Your task to perform on an android device: What's on my calendar today? Image 0: 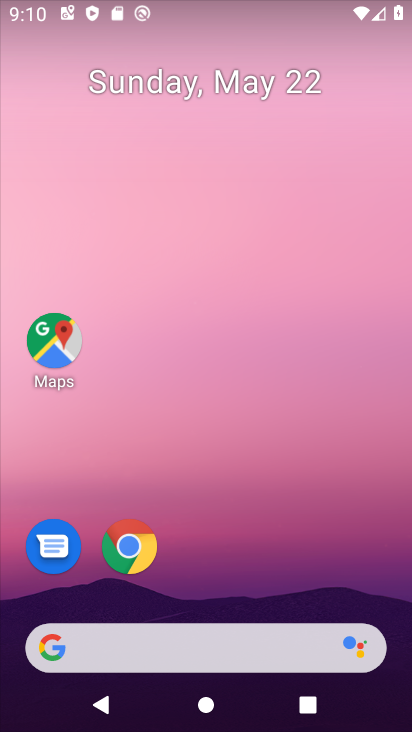
Step 0: drag from (226, 565) to (305, 14)
Your task to perform on an android device: What's on my calendar today? Image 1: 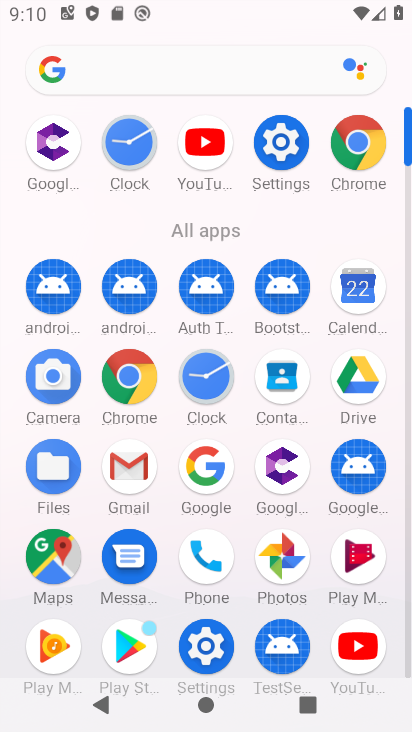
Step 1: click (354, 254)
Your task to perform on an android device: What's on my calendar today? Image 2: 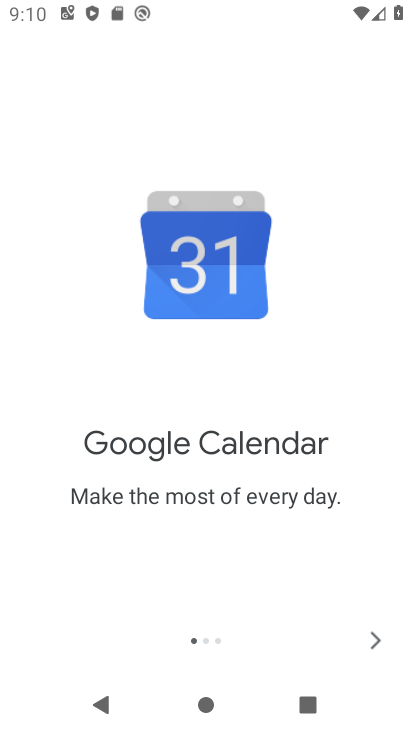
Step 2: click (378, 652)
Your task to perform on an android device: What's on my calendar today? Image 3: 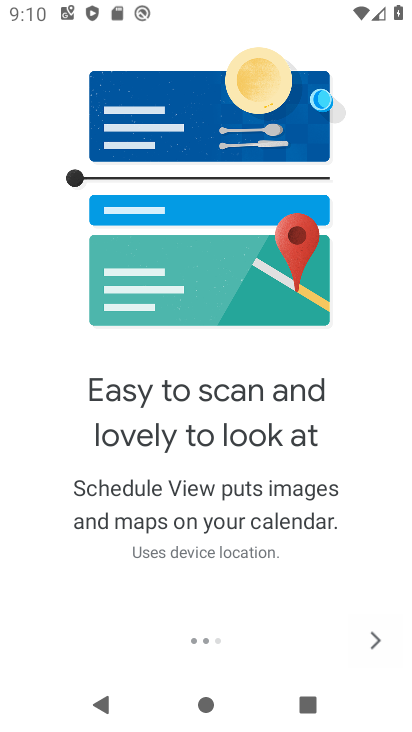
Step 3: click (376, 651)
Your task to perform on an android device: What's on my calendar today? Image 4: 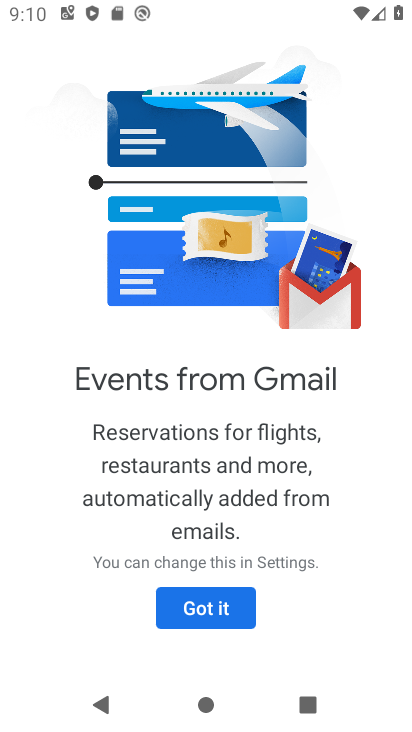
Step 4: click (233, 623)
Your task to perform on an android device: What's on my calendar today? Image 5: 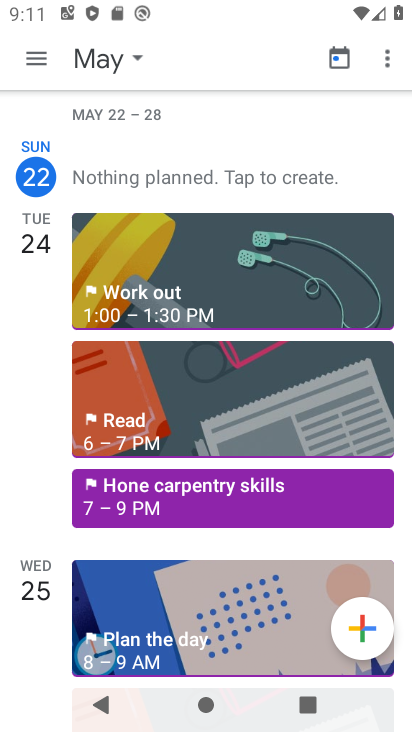
Step 5: task complete